Your task to perform on an android device: Search for sushi restaurants on Maps Image 0: 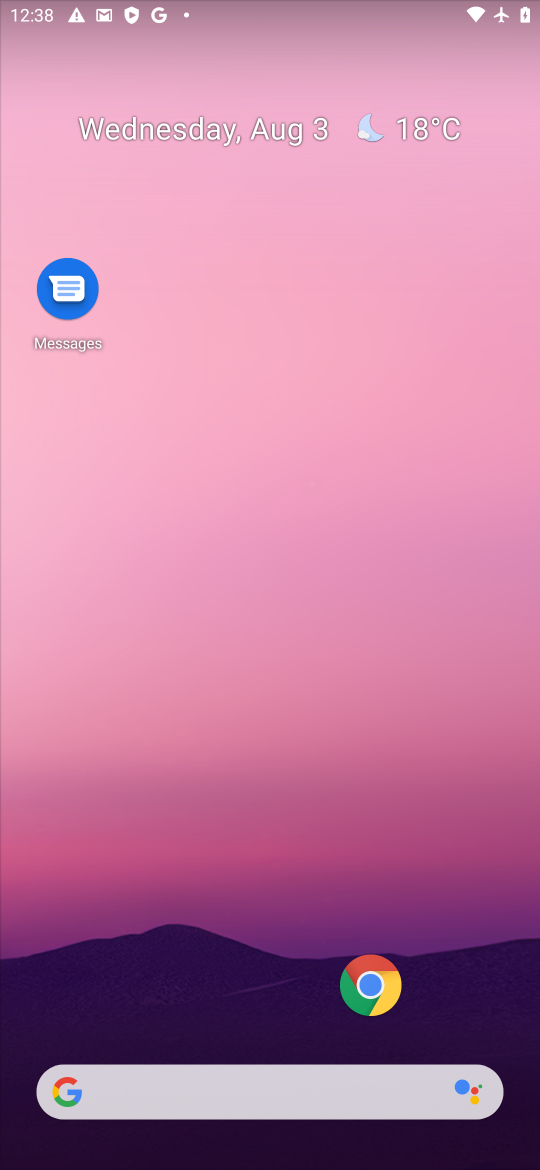
Step 0: drag from (282, 1026) to (196, 93)
Your task to perform on an android device: Search for sushi restaurants on Maps Image 1: 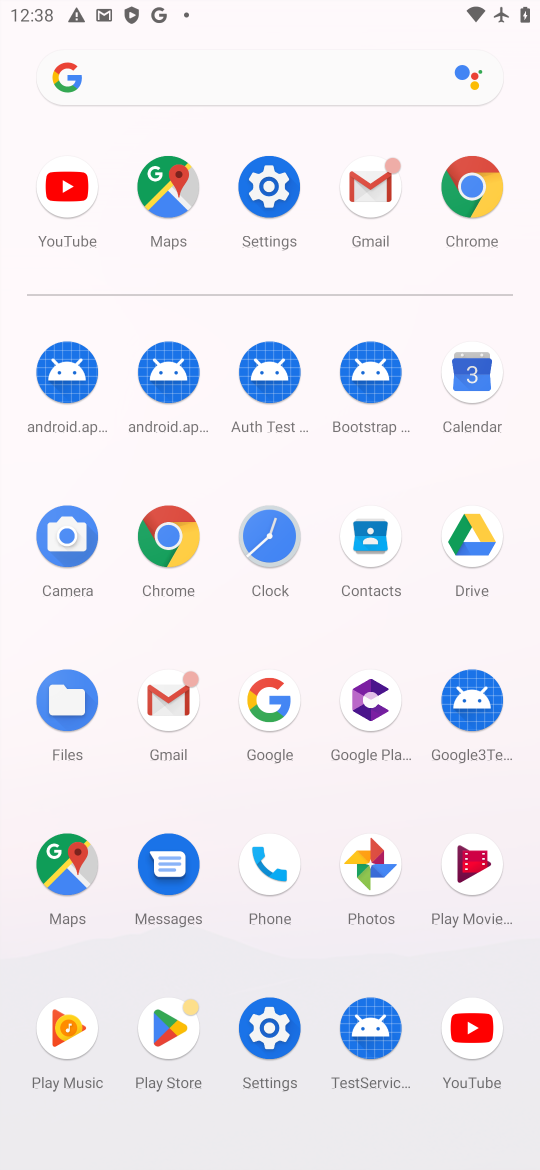
Step 1: click (91, 870)
Your task to perform on an android device: Search for sushi restaurants on Maps Image 2: 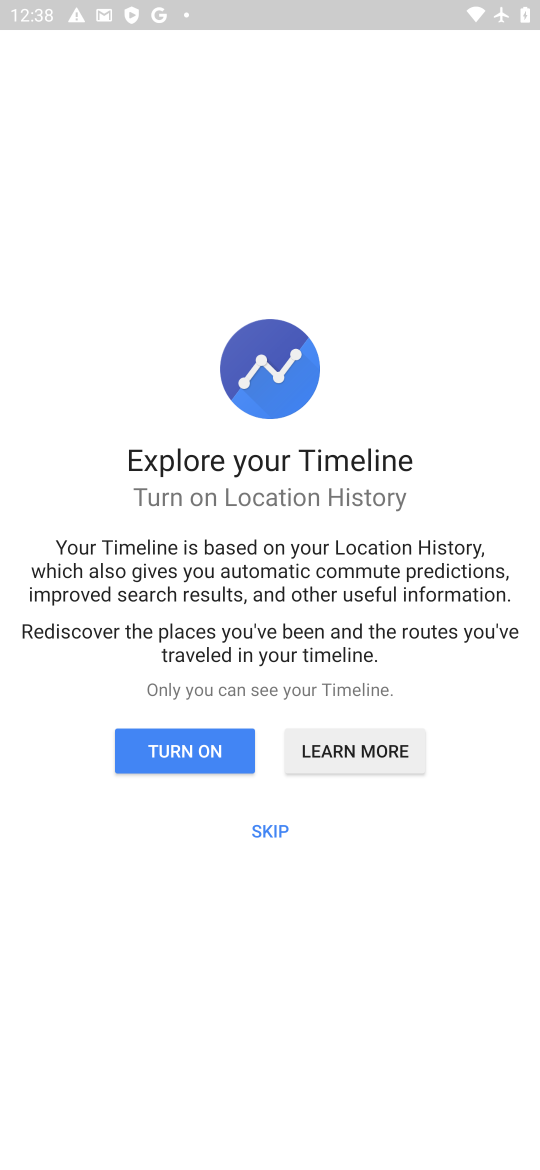
Step 2: task complete